Your task to perform on an android device: add a label to a message in the gmail app Image 0: 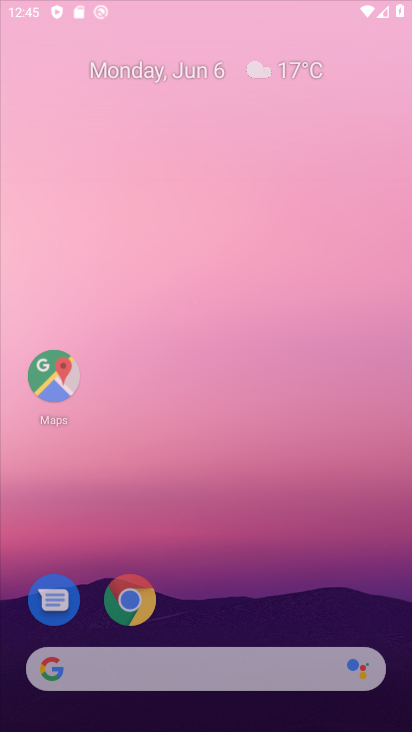
Step 0: drag from (312, 187) to (303, 106)
Your task to perform on an android device: add a label to a message in the gmail app Image 1: 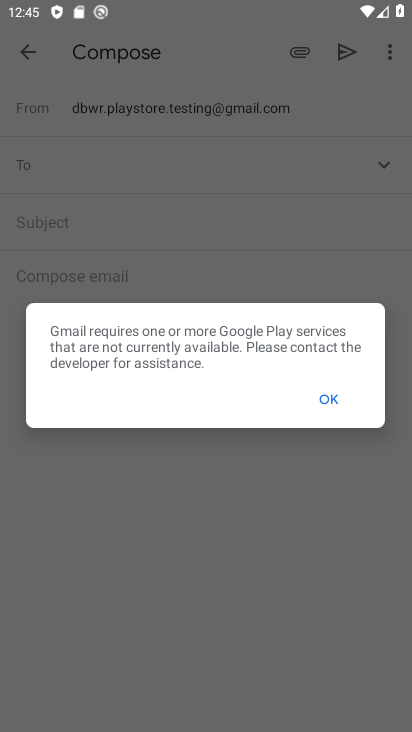
Step 1: press home button
Your task to perform on an android device: add a label to a message in the gmail app Image 2: 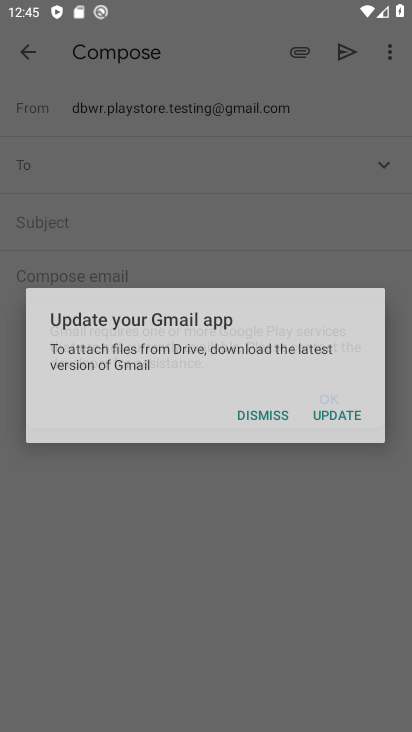
Step 2: drag from (189, 238) to (198, 96)
Your task to perform on an android device: add a label to a message in the gmail app Image 3: 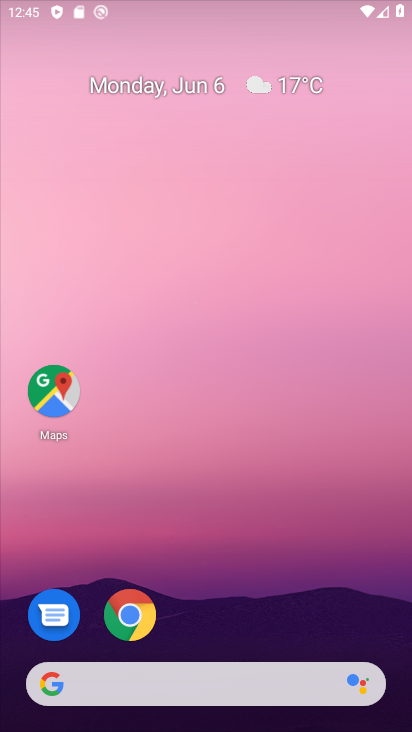
Step 3: drag from (215, 529) to (215, 9)
Your task to perform on an android device: add a label to a message in the gmail app Image 4: 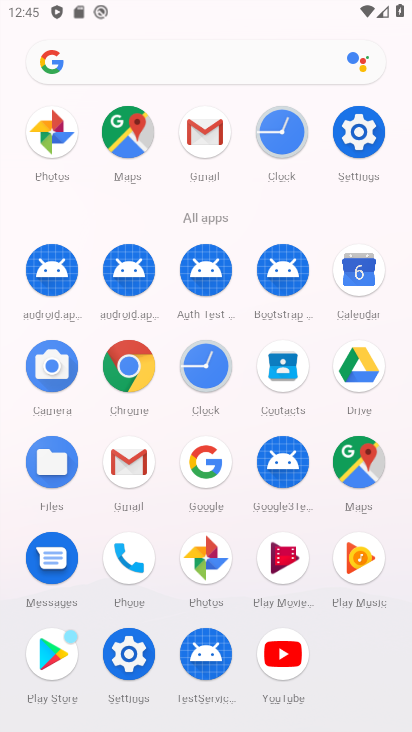
Step 4: drag from (172, 657) to (198, 209)
Your task to perform on an android device: add a label to a message in the gmail app Image 5: 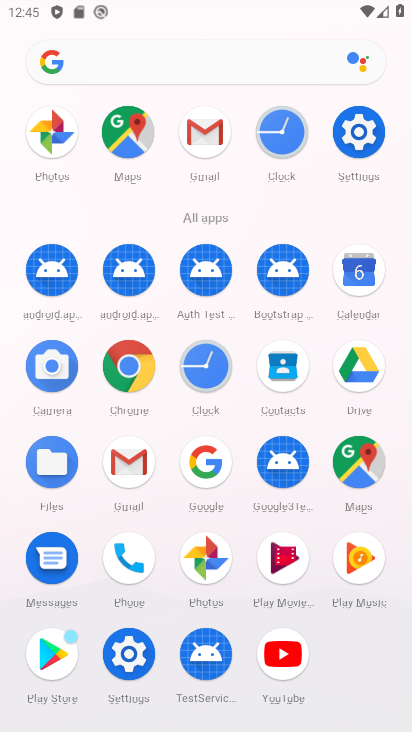
Step 5: click (123, 447)
Your task to perform on an android device: add a label to a message in the gmail app Image 6: 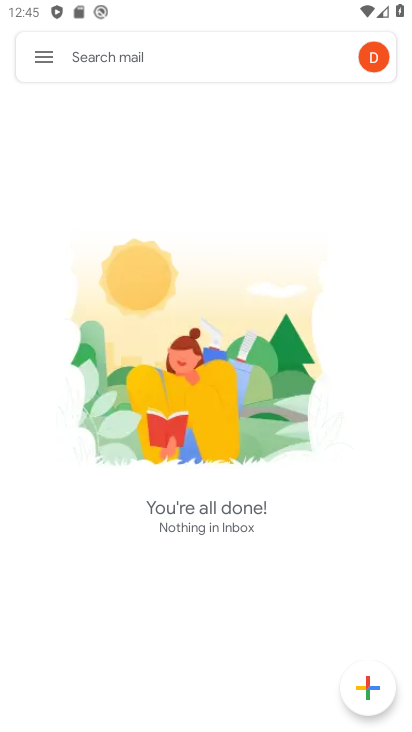
Step 6: click (45, 67)
Your task to perform on an android device: add a label to a message in the gmail app Image 7: 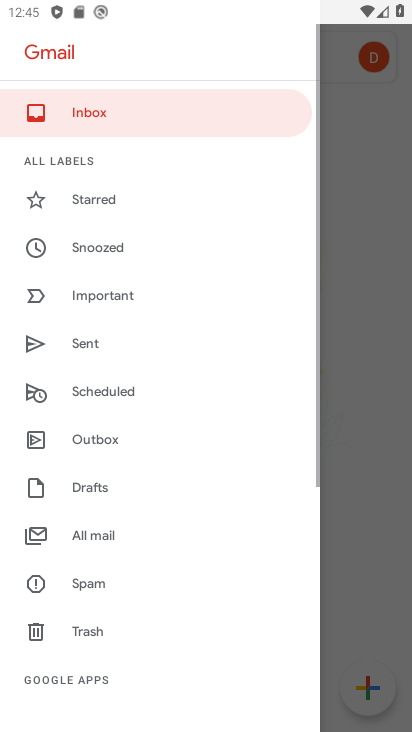
Step 7: task complete